Your task to perform on an android device: Search for vegetarian restaurants on Maps Image 0: 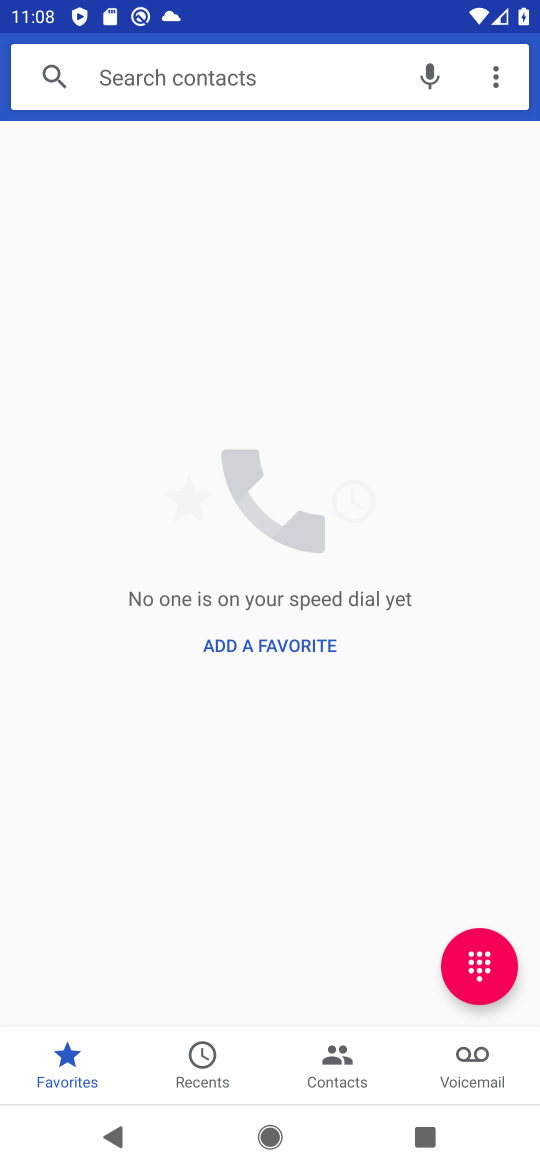
Step 0: press home button
Your task to perform on an android device: Search for vegetarian restaurants on Maps Image 1: 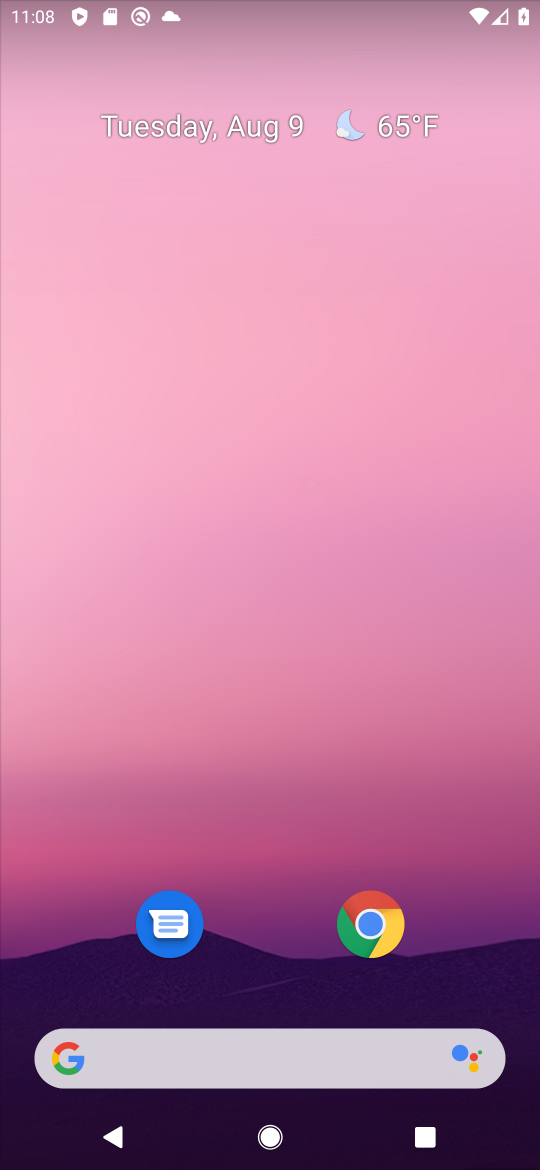
Step 1: drag from (288, 935) to (372, 34)
Your task to perform on an android device: Search for vegetarian restaurants on Maps Image 2: 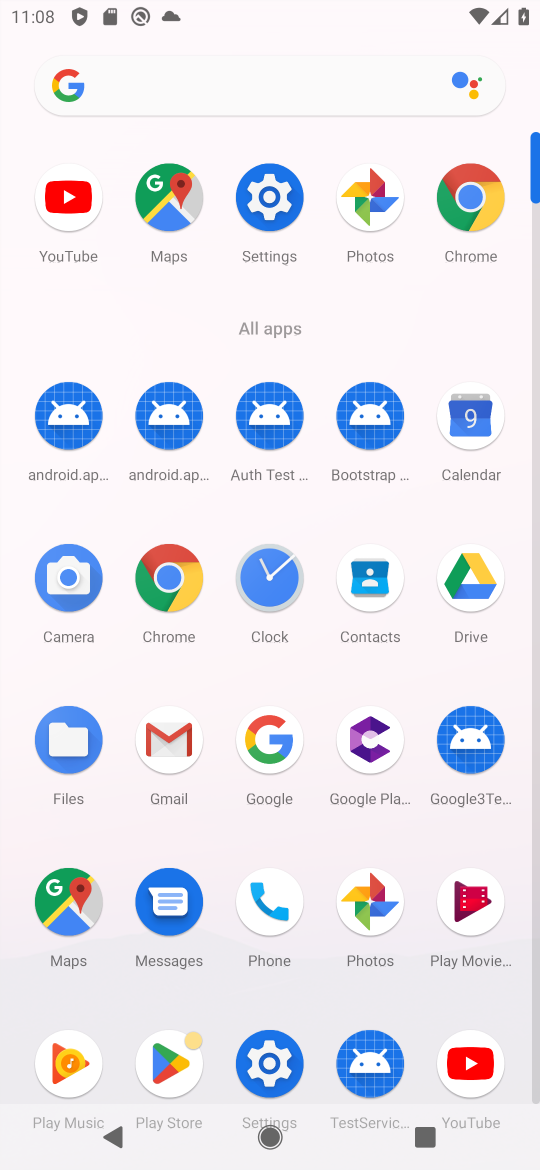
Step 2: click (161, 185)
Your task to perform on an android device: Search for vegetarian restaurants on Maps Image 3: 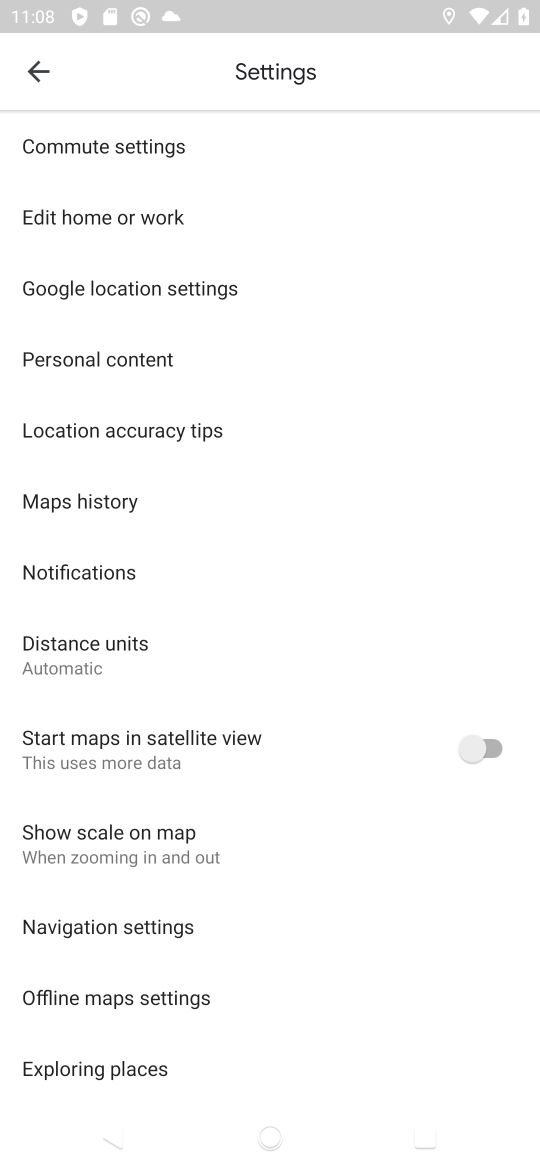
Step 3: click (36, 67)
Your task to perform on an android device: Search for vegetarian restaurants on Maps Image 4: 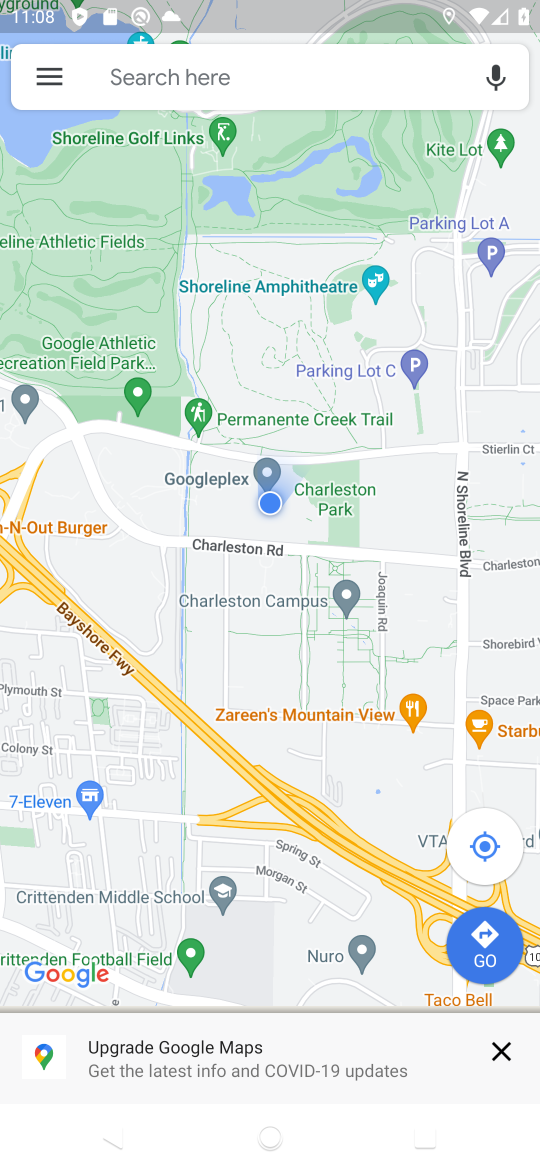
Step 4: click (261, 68)
Your task to perform on an android device: Search for vegetarian restaurants on Maps Image 5: 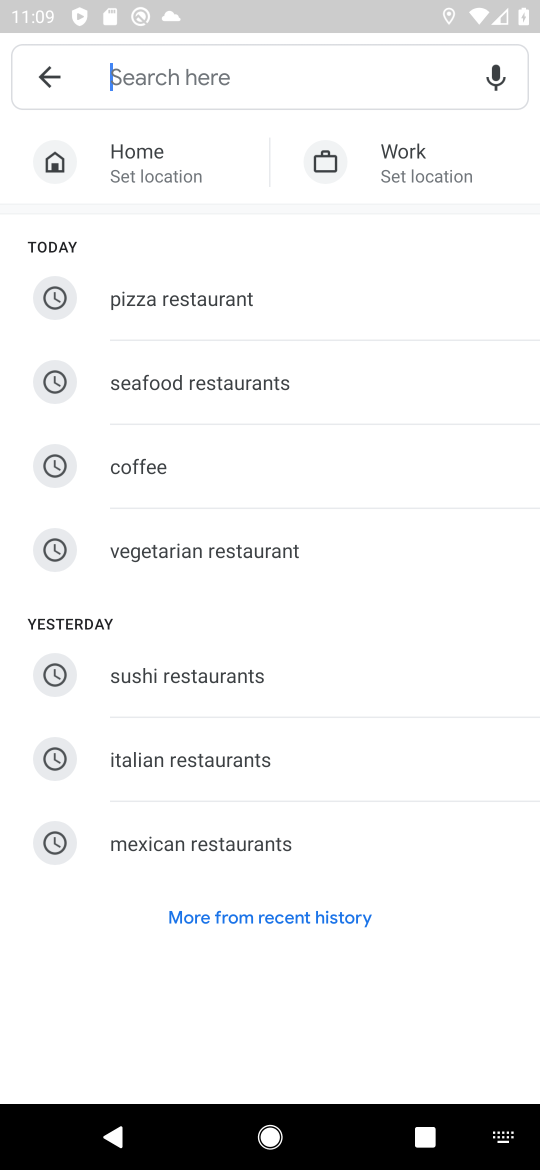
Step 5: type " vegetarian restaurants"
Your task to perform on an android device: Search for vegetarian restaurants on Maps Image 6: 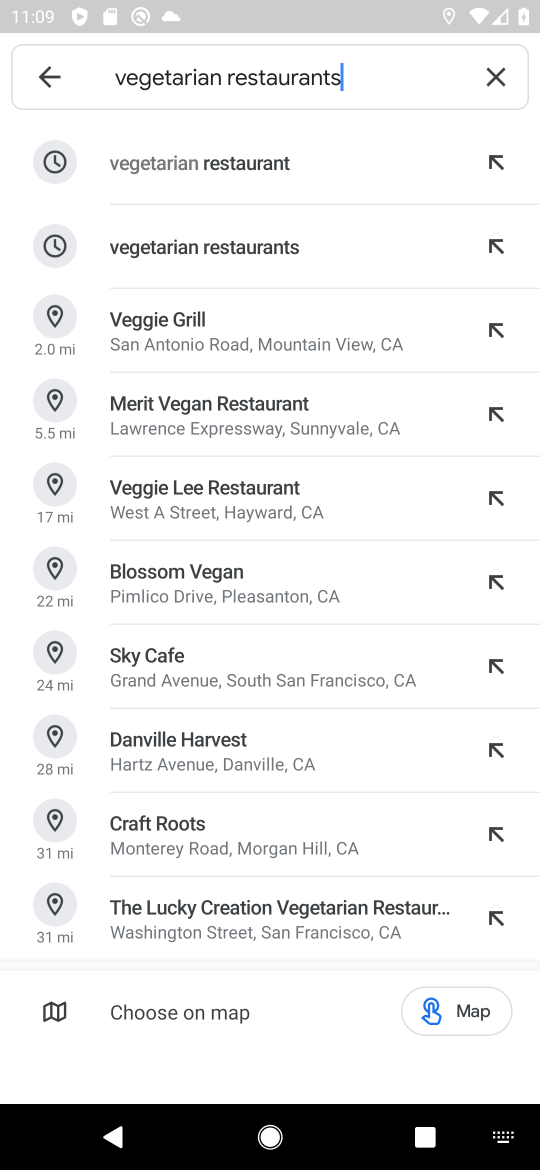
Step 6: click (231, 139)
Your task to perform on an android device: Search for vegetarian restaurants on Maps Image 7: 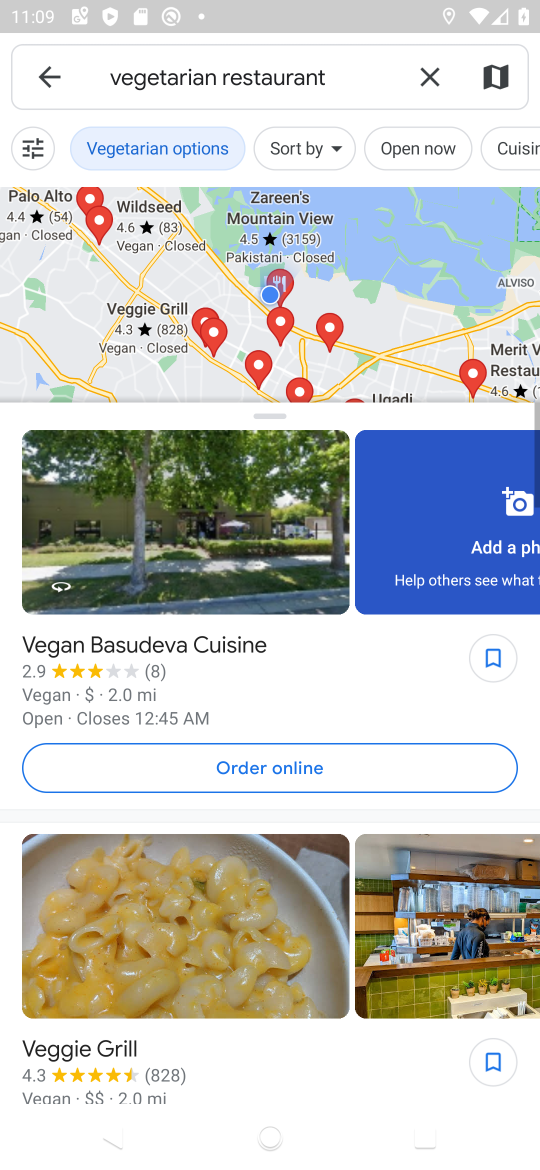
Step 7: task complete